Your task to perform on an android device: What's the weather today? Image 0: 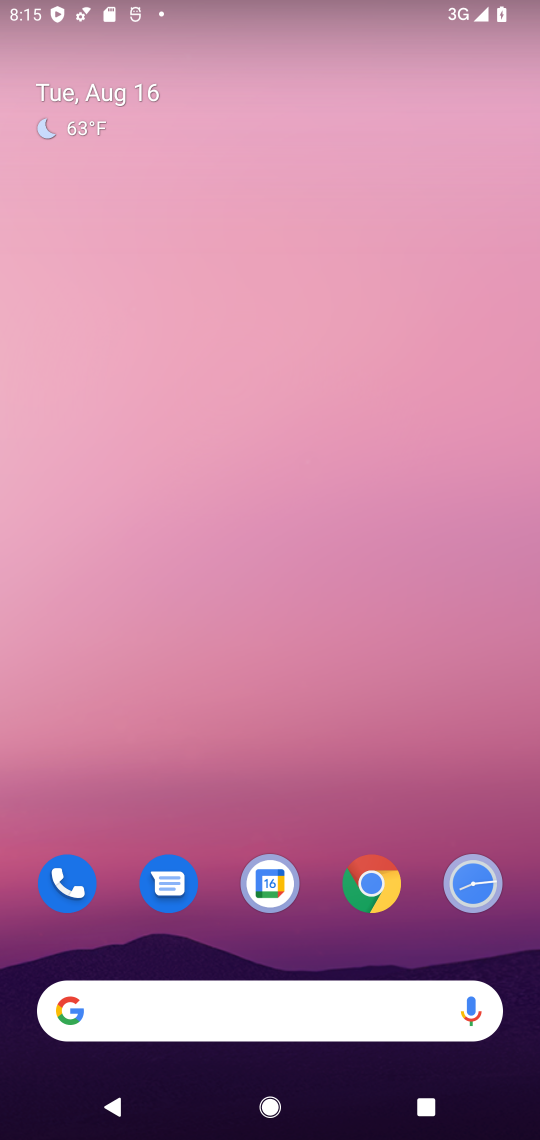
Step 0: drag from (352, 820) to (327, 475)
Your task to perform on an android device: What's the weather today? Image 1: 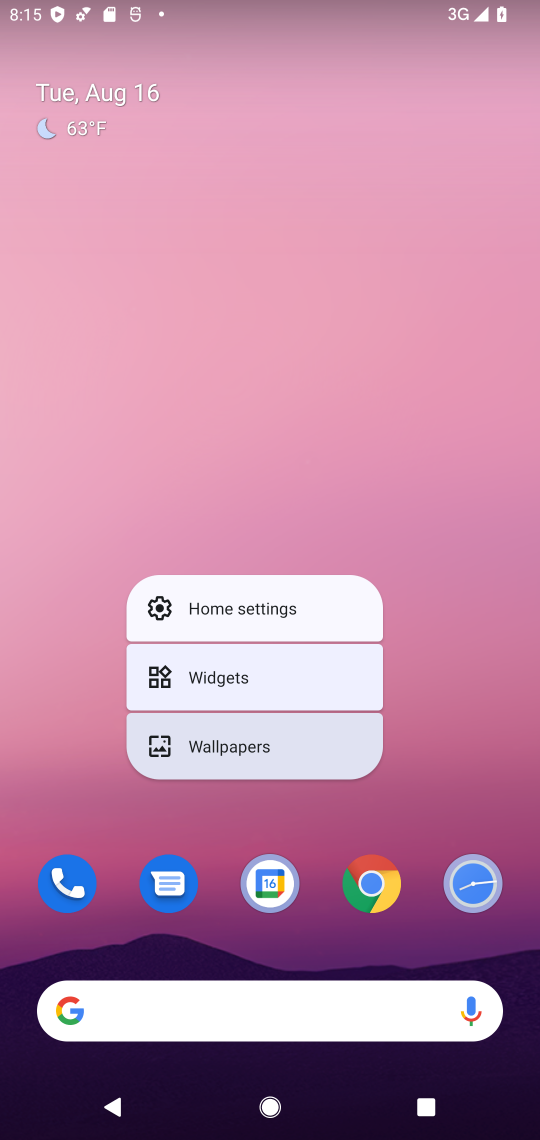
Step 1: click (388, 509)
Your task to perform on an android device: What's the weather today? Image 2: 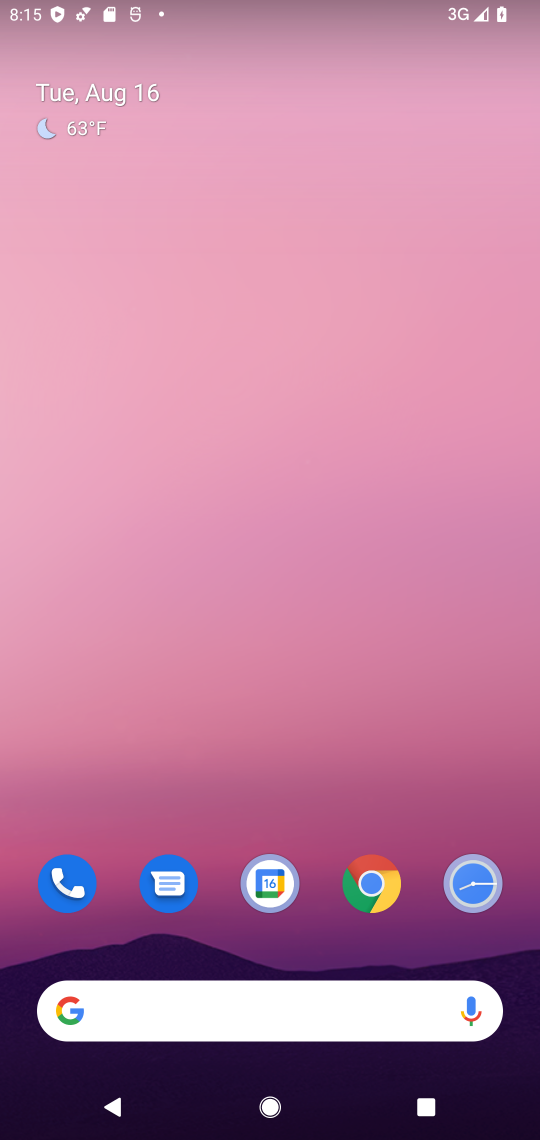
Step 2: click (384, 1025)
Your task to perform on an android device: What's the weather today? Image 3: 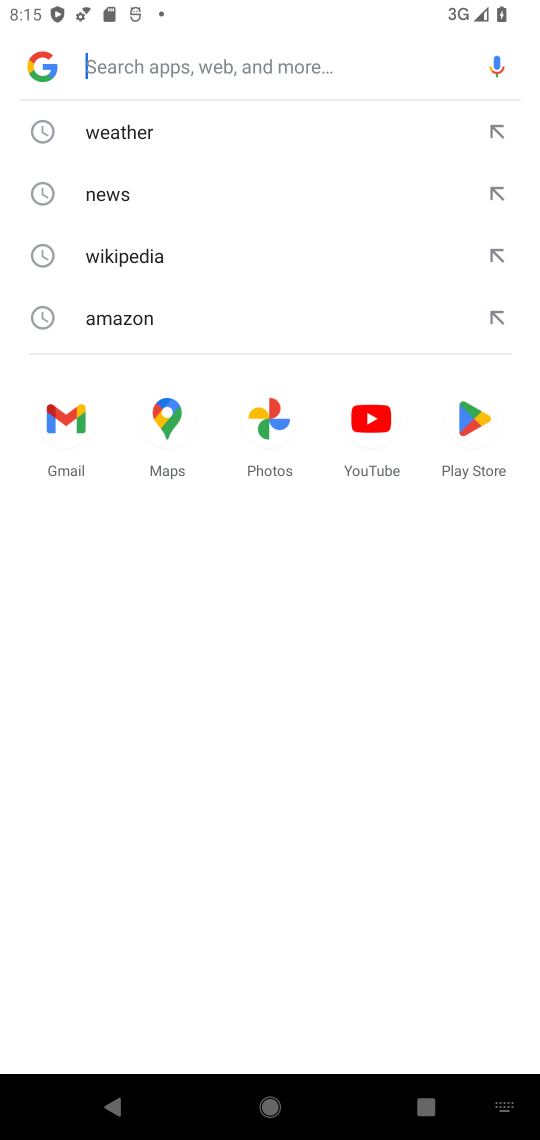
Step 3: click (190, 128)
Your task to perform on an android device: What's the weather today? Image 4: 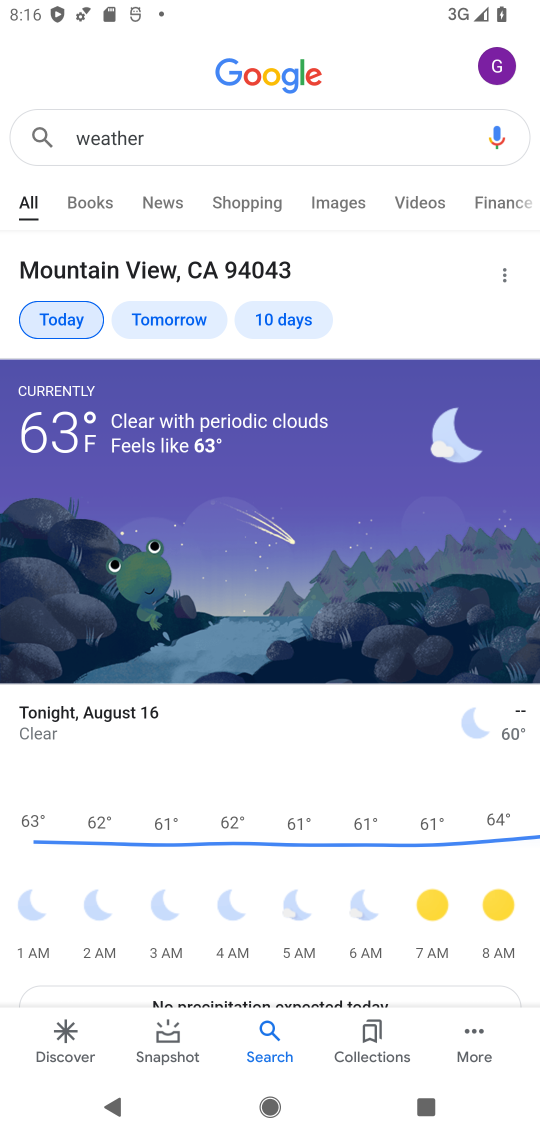
Step 4: task complete